Your task to perform on an android device: Do I have any events tomorrow? Image 0: 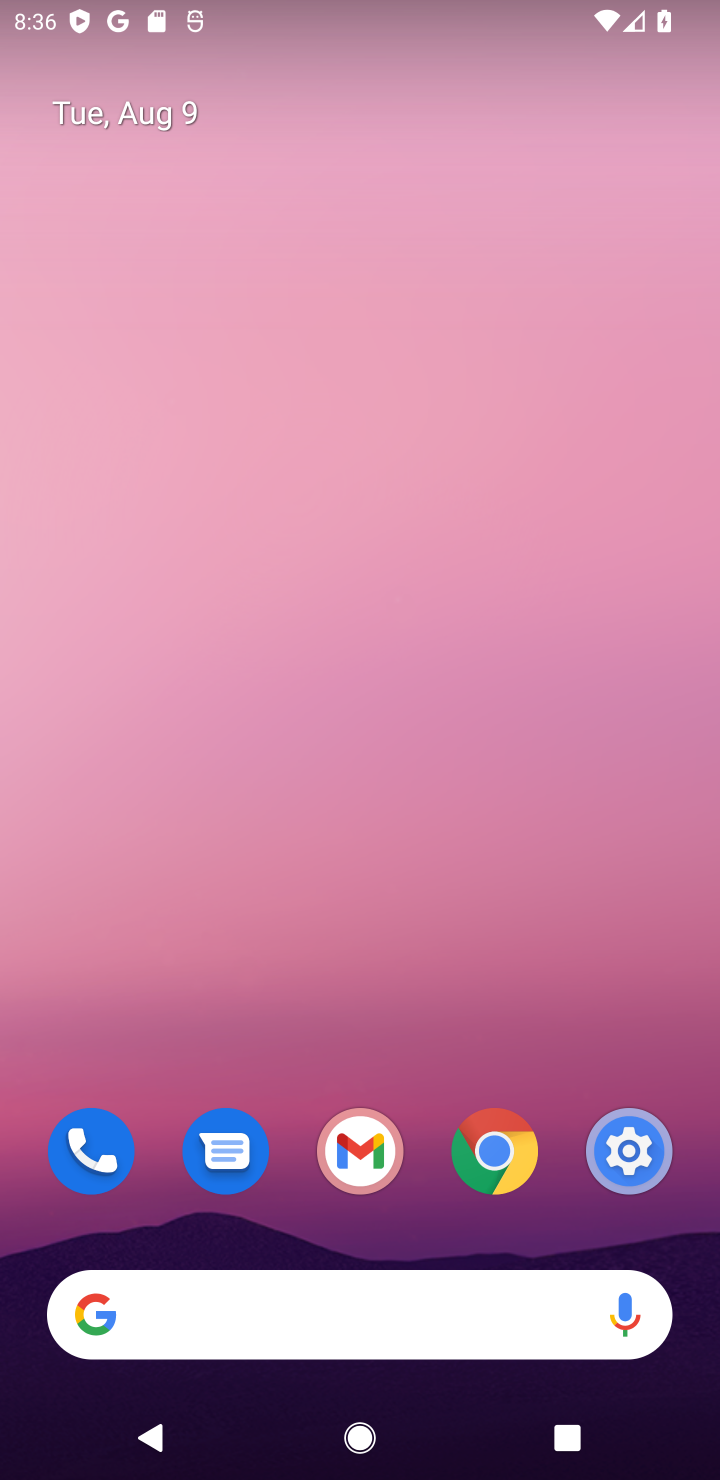
Step 0: drag from (306, 1098) to (274, 137)
Your task to perform on an android device: Do I have any events tomorrow? Image 1: 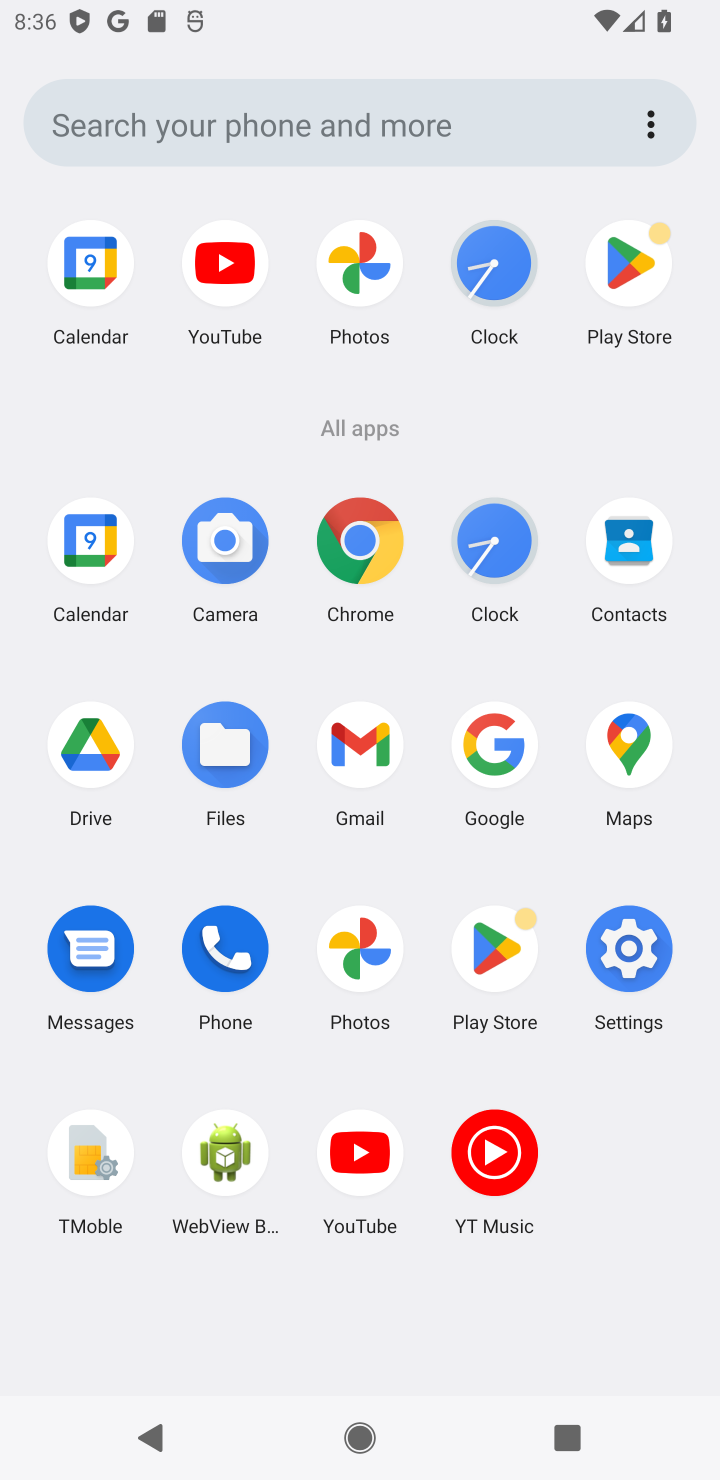
Step 1: click (74, 268)
Your task to perform on an android device: Do I have any events tomorrow? Image 2: 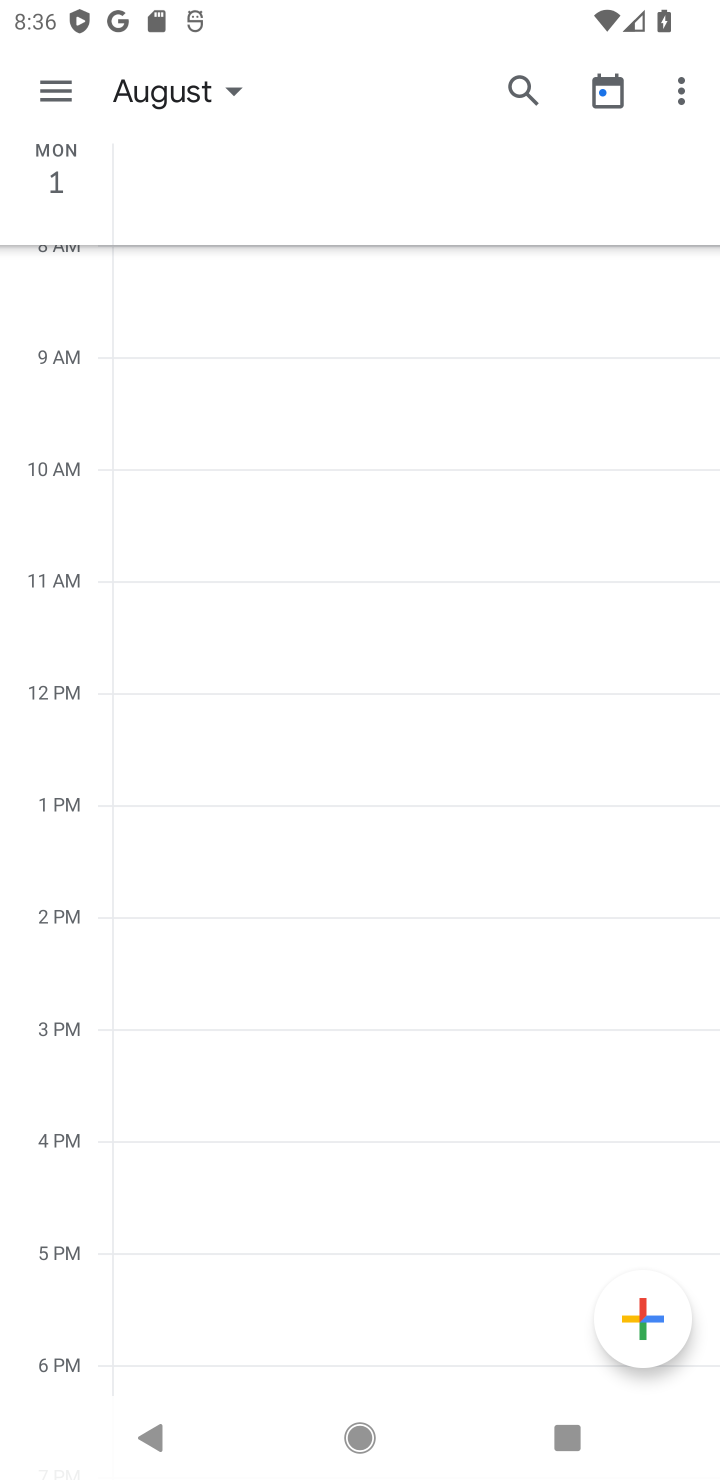
Step 2: click (62, 111)
Your task to perform on an android device: Do I have any events tomorrow? Image 3: 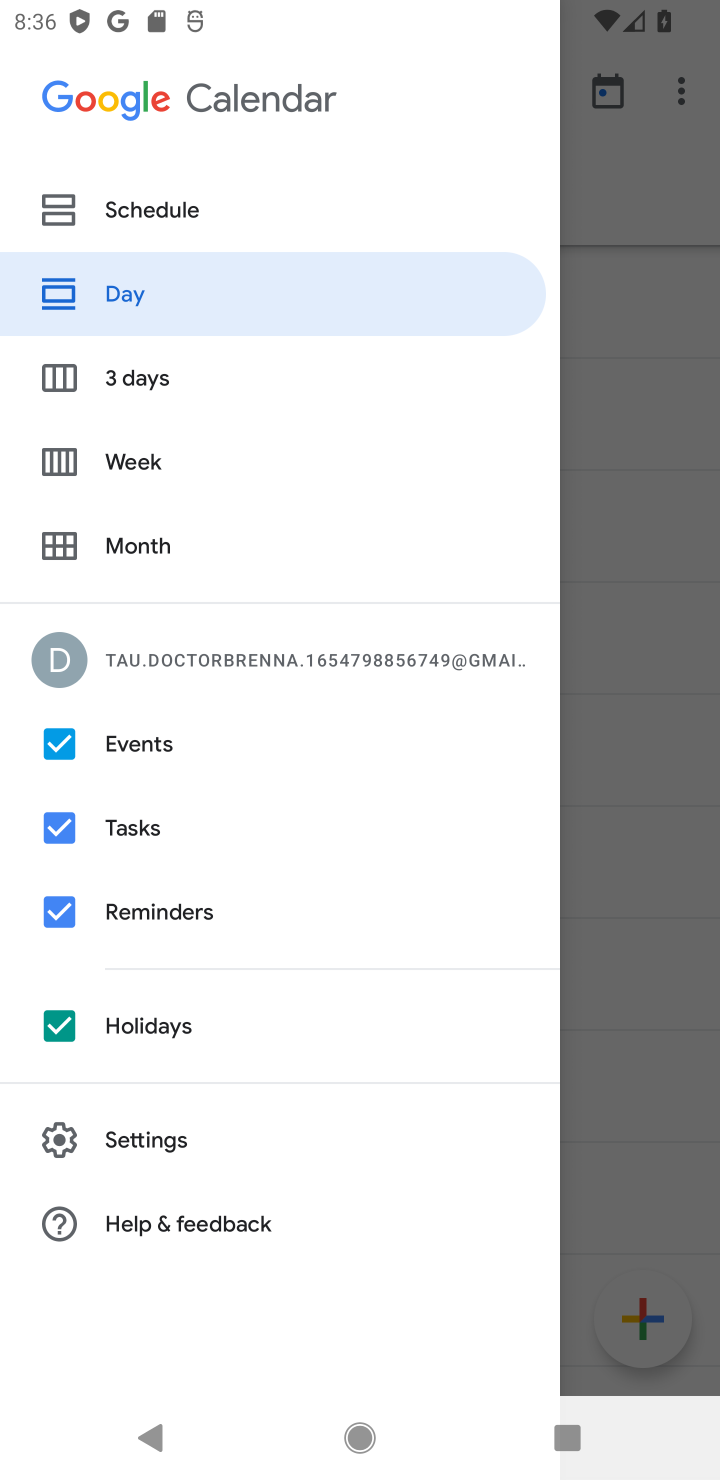
Step 3: click (145, 279)
Your task to perform on an android device: Do I have any events tomorrow? Image 4: 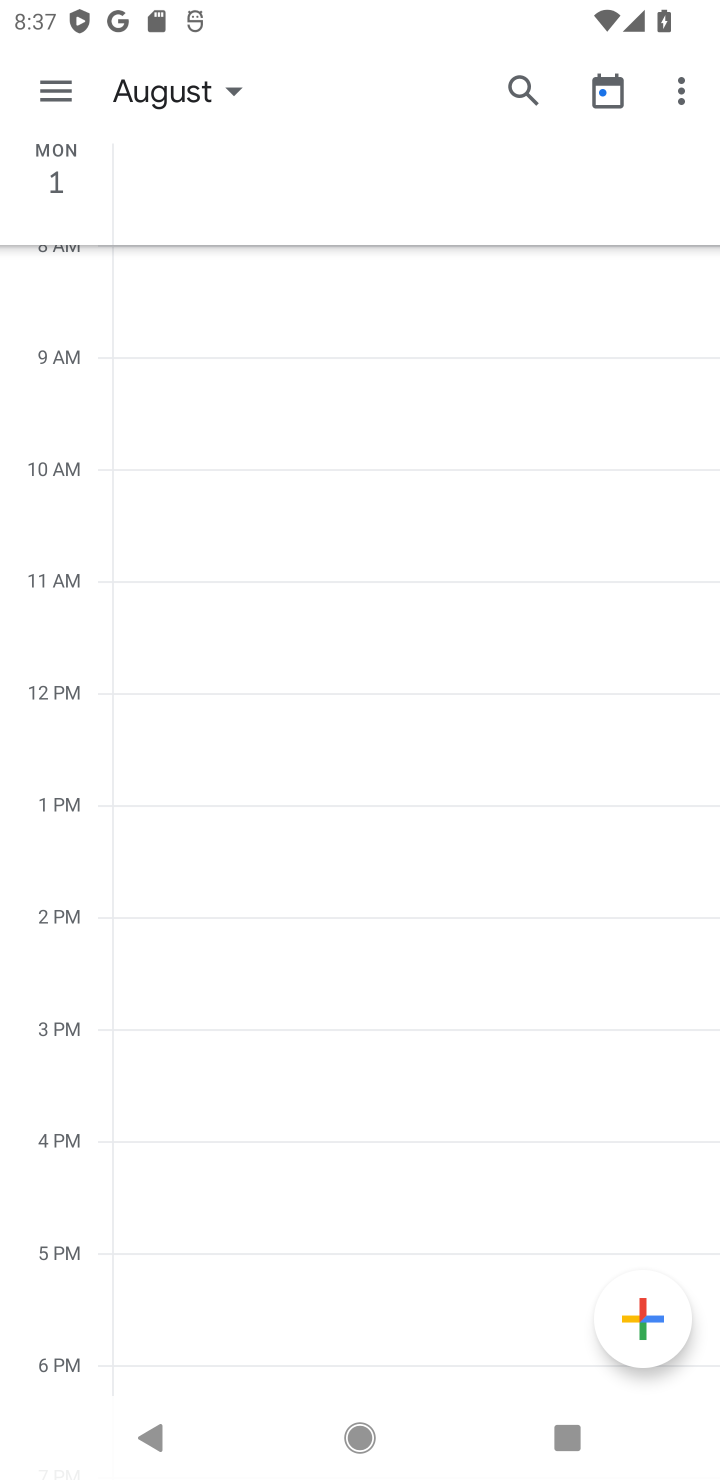
Step 4: task complete